Your task to perform on an android device: Open wifi settings Image 0: 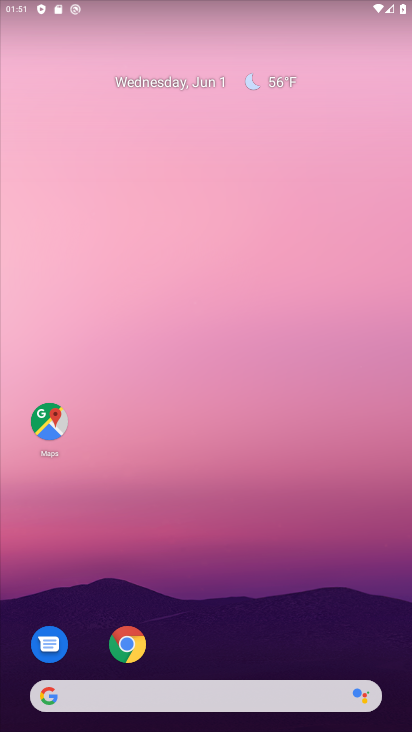
Step 0: drag from (195, 675) to (195, 340)
Your task to perform on an android device: Open wifi settings Image 1: 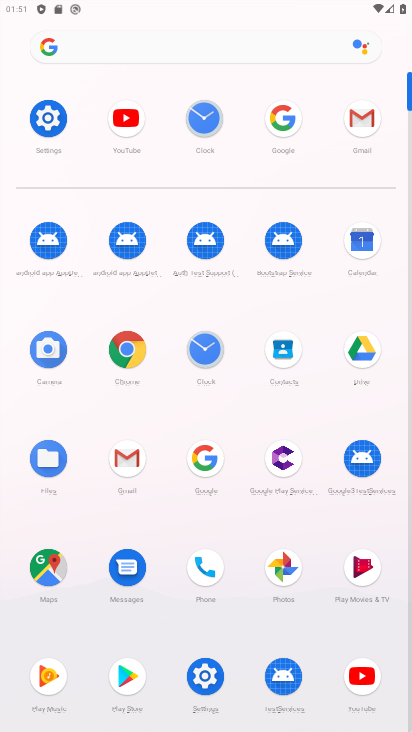
Step 1: click (42, 114)
Your task to perform on an android device: Open wifi settings Image 2: 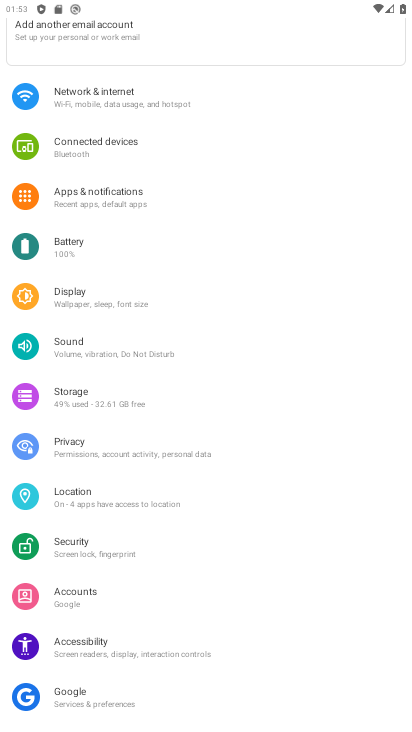
Step 2: click (126, 81)
Your task to perform on an android device: Open wifi settings Image 3: 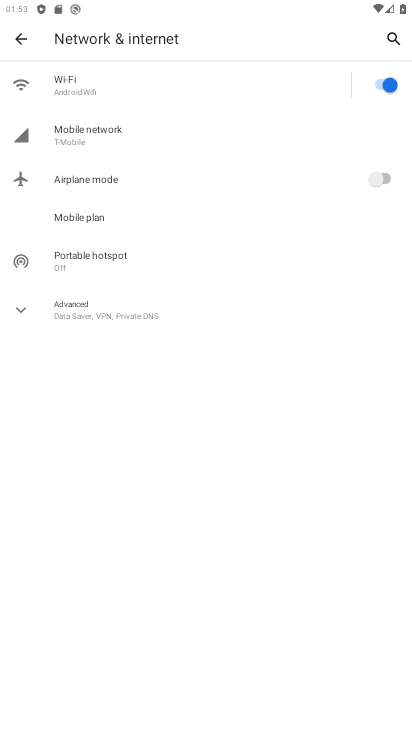
Step 3: click (119, 90)
Your task to perform on an android device: Open wifi settings Image 4: 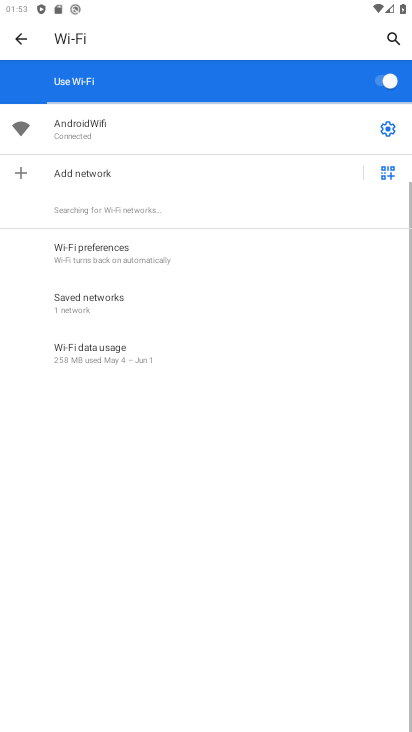
Step 4: click (380, 134)
Your task to perform on an android device: Open wifi settings Image 5: 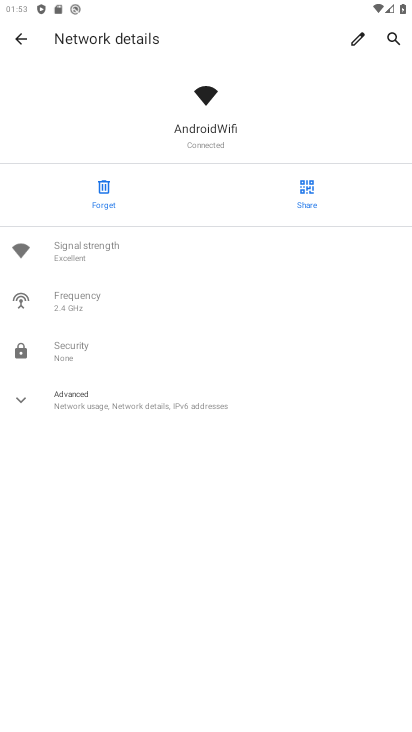
Step 5: task complete